Your task to perform on an android device: see tabs open on other devices in the chrome app Image 0: 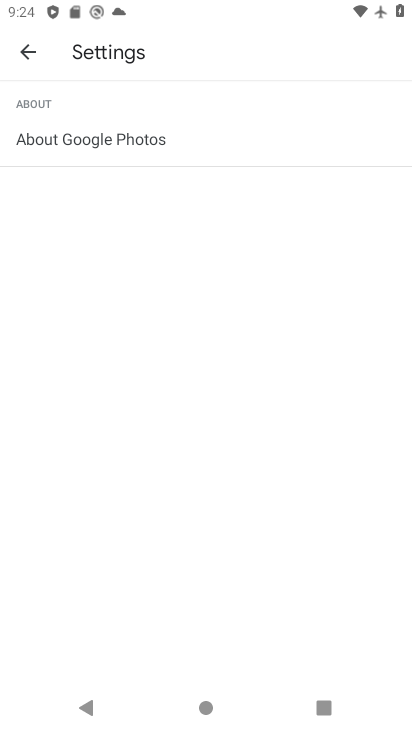
Step 0: press home button
Your task to perform on an android device: see tabs open on other devices in the chrome app Image 1: 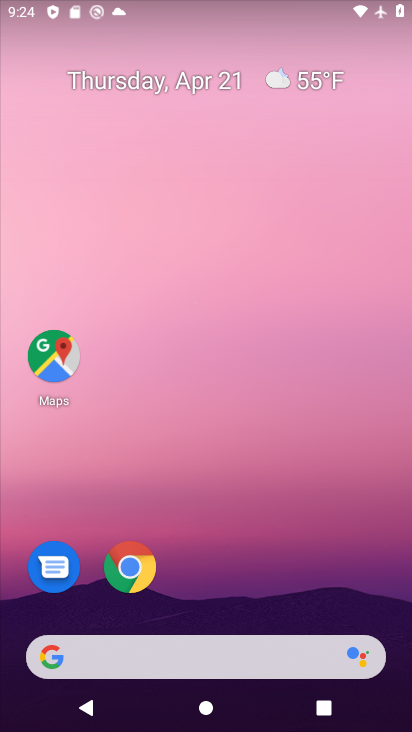
Step 1: click (128, 567)
Your task to perform on an android device: see tabs open on other devices in the chrome app Image 2: 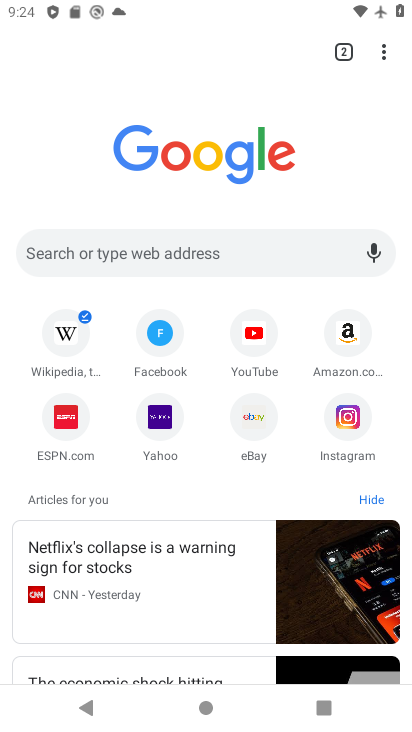
Step 2: click (383, 56)
Your task to perform on an android device: see tabs open on other devices in the chrome app Image 3: 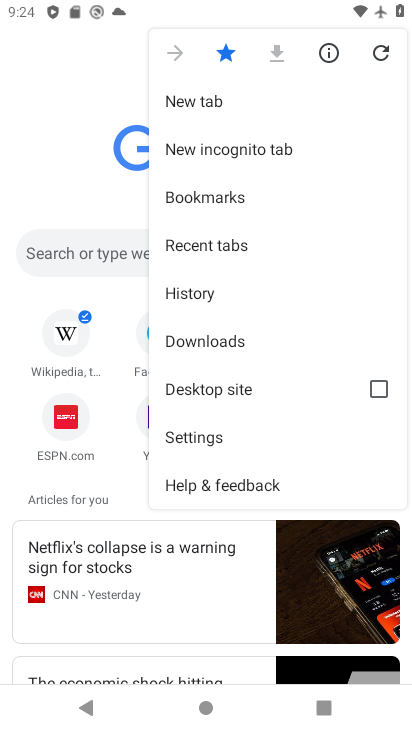
Step 3: click (199, 238)
Your task to perform on an android device: see tabs open on other devices in the chrome app Image 4: 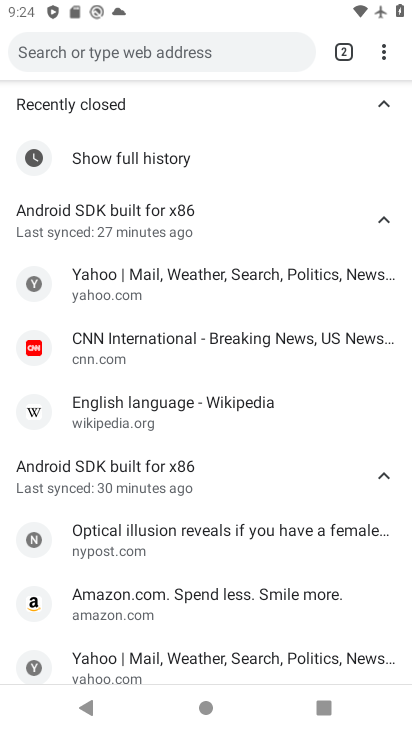
Step 4: task complete